Your task to perform on an android device: open app "File Manager" Image 0: 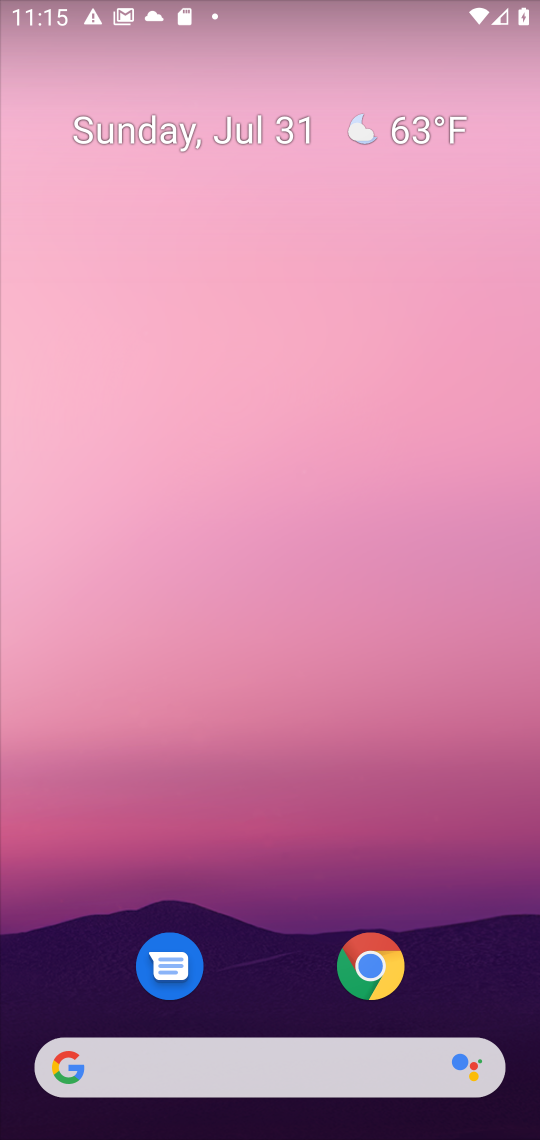
Step 0: drag from (253, 980) to (273, 69)
Your task to perform on an android device: open app "File Manager" Image 1: 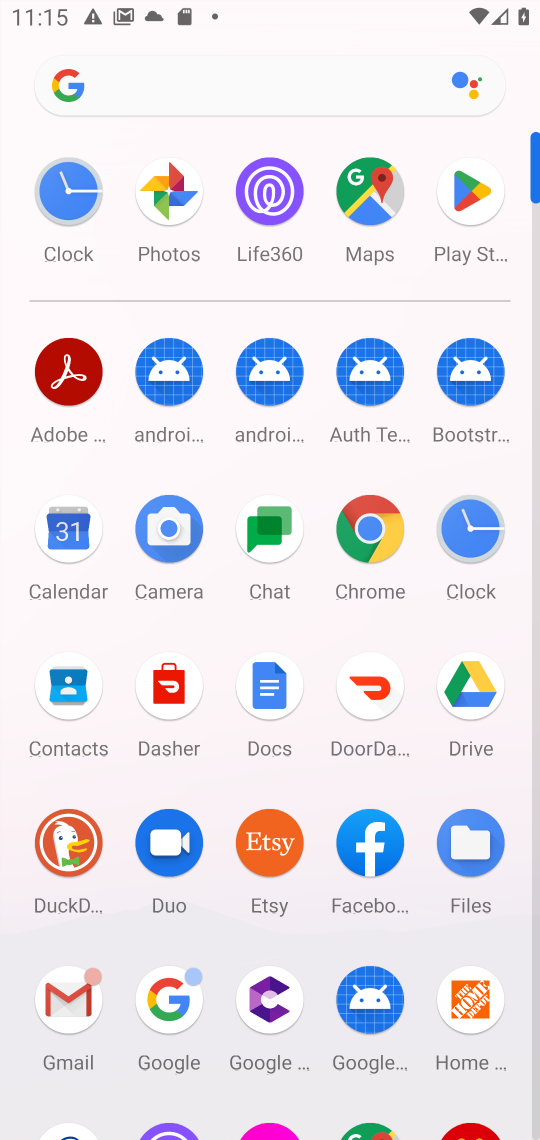
Step 1: click (484, 219)
Your task to perform on an android device: open app "File Manager" Image 2: 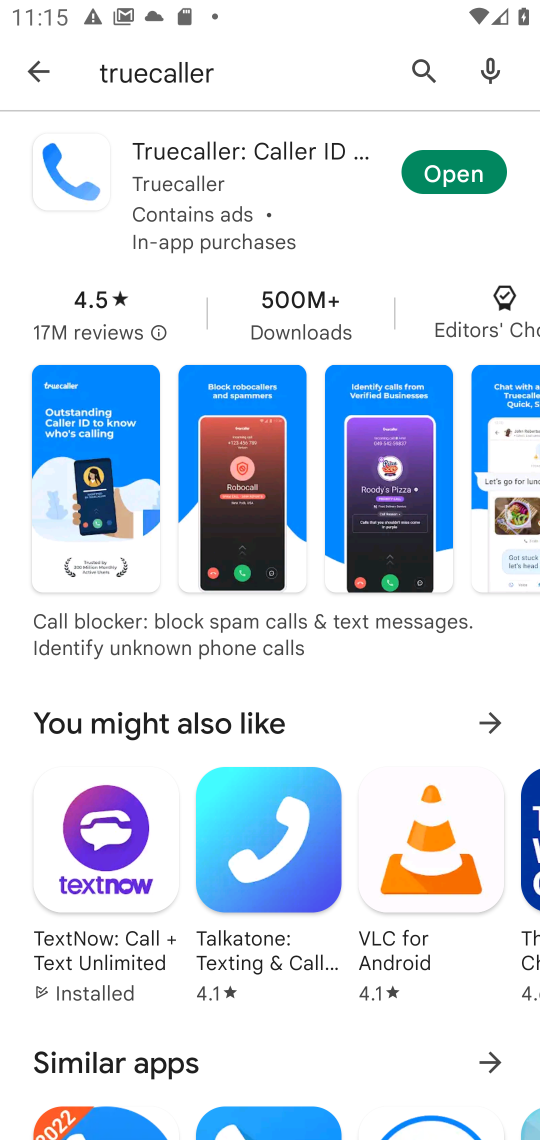
Step 2: click (236, 70)
Your task to perform on an android device: open app "File Manager" Image 3: 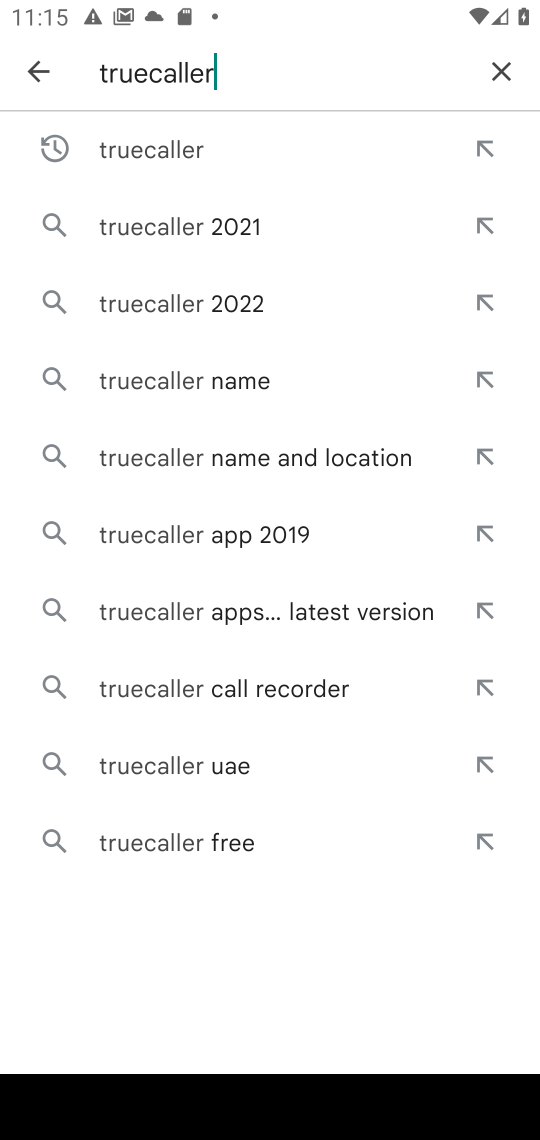
Step 3: click (491, 67)
Your task to perform on an android device: open app "File Manager" Image 4: 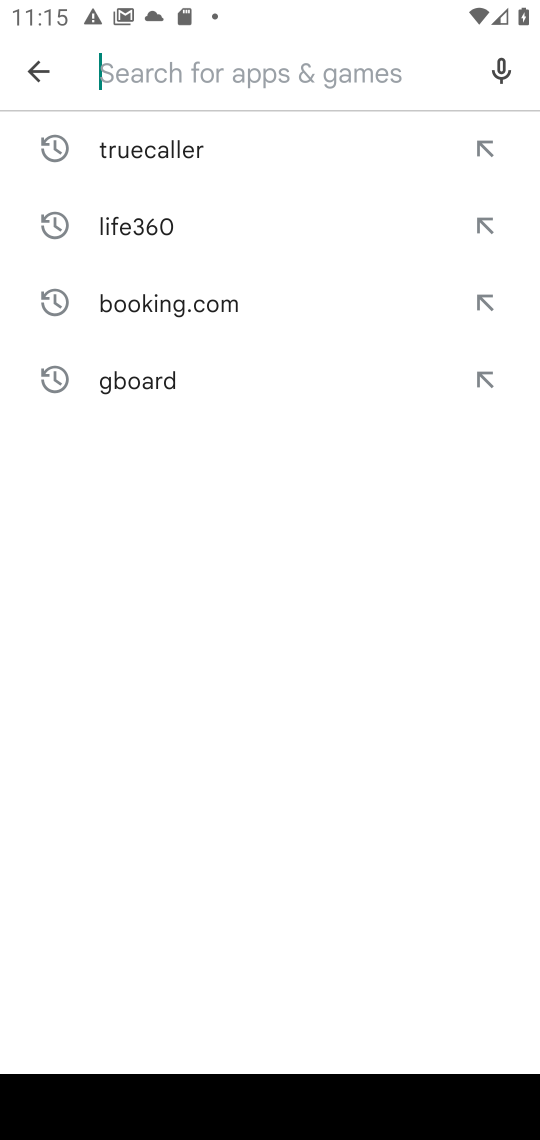
Step 4: type "file manager"
Your task to perform on an android device: open app "File Manager" Image 5: 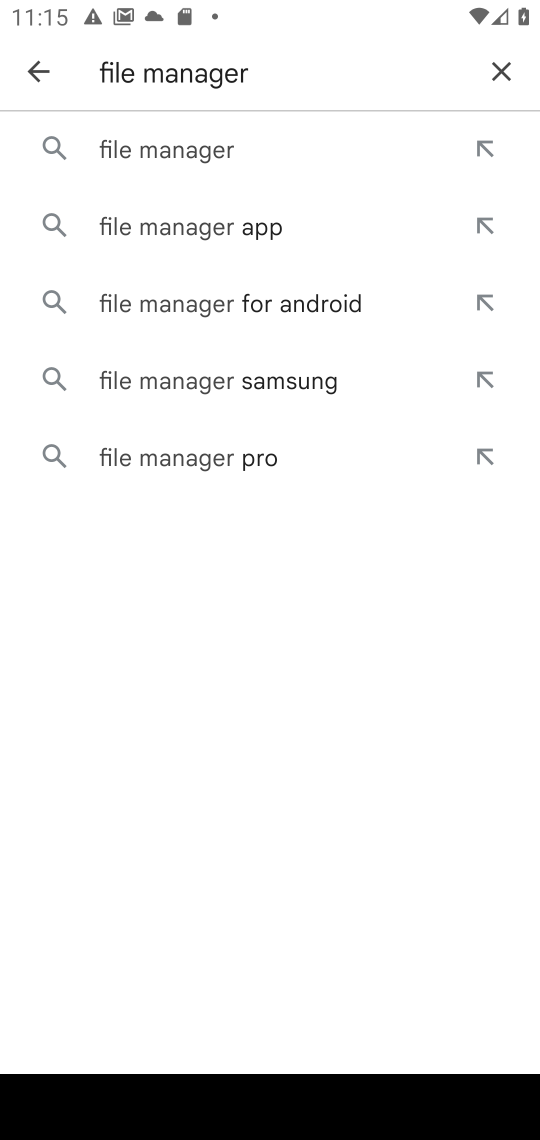
Step 5: click (221, 169)
Your task to perform on an android device: open app "File Manager" Image 6: 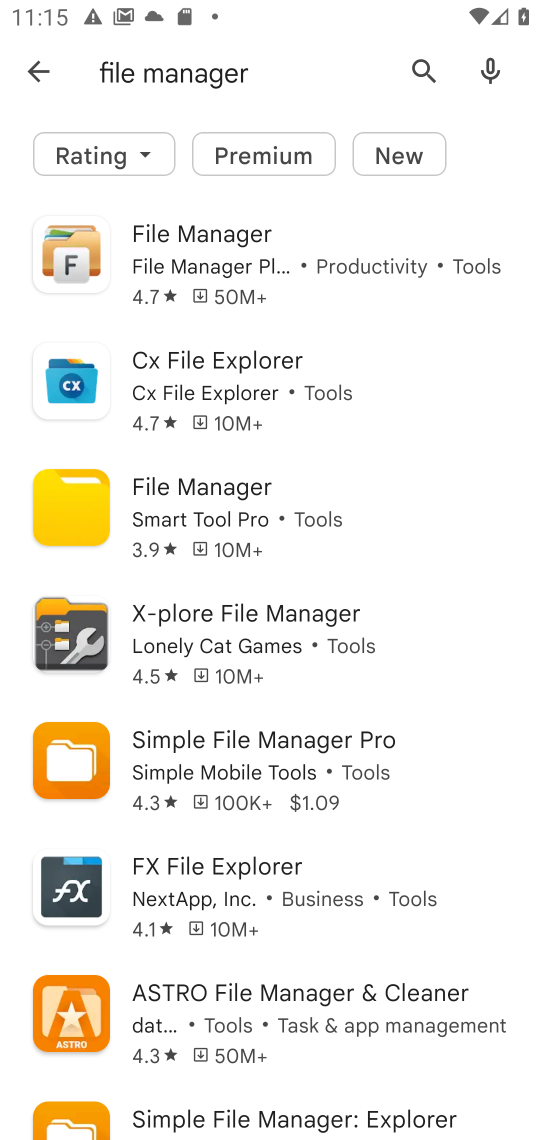
Step 6: click (205, 284)
Your task to perform on an android device: open app "File Manager" Image 7: 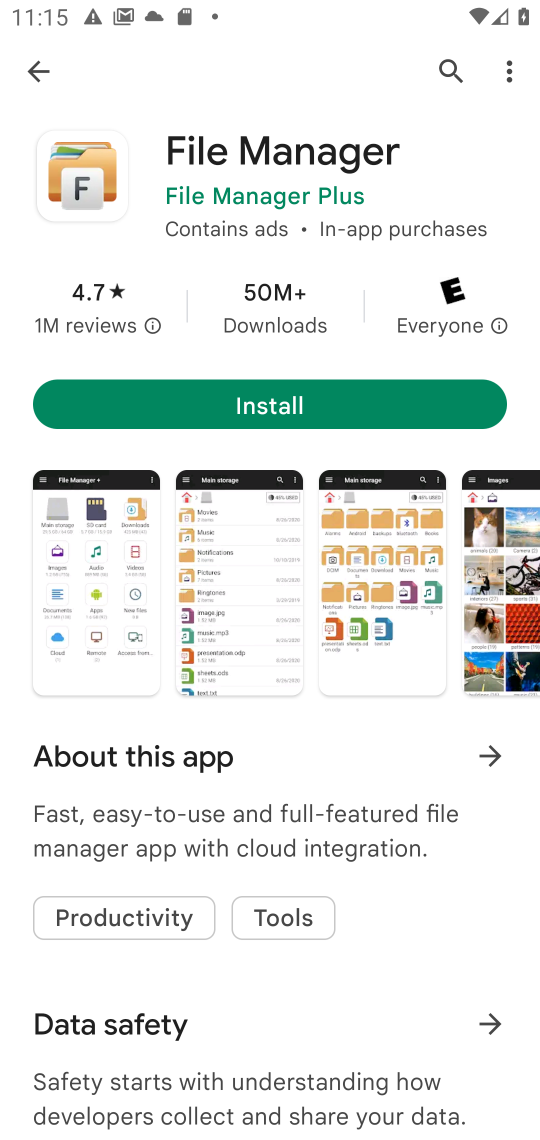
Step 7: task complete